Your task to perform on an android device: Search for vegetarian restaurants on Maps Image 0: 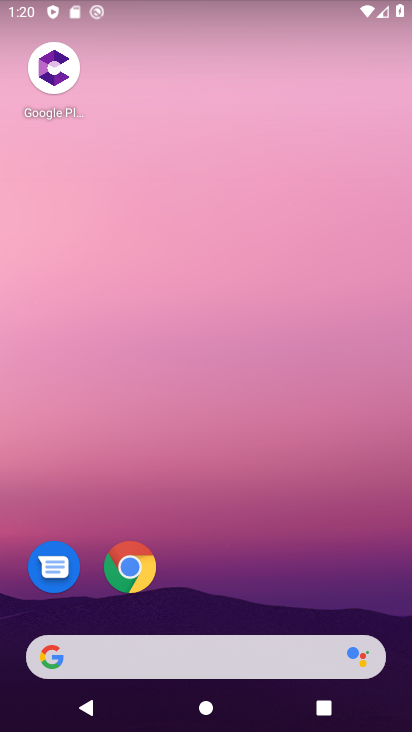
Step 0: drag from (185, 640) to (278, 295)
Your task to perform on an android device: Search for vegetarian restaurants on Maps Image 1: 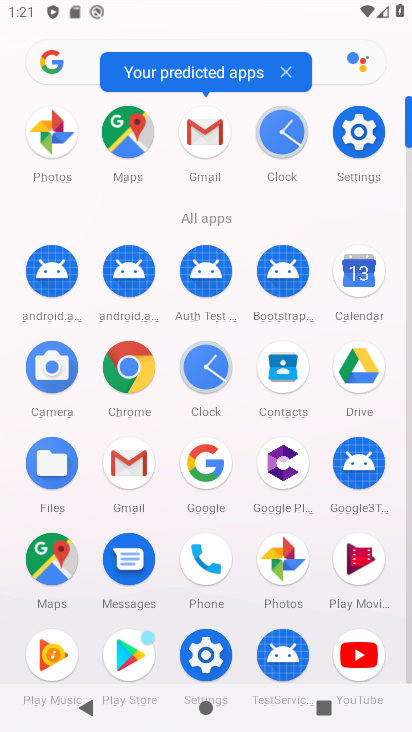
Step 1: click (53, 559)
Your task to perform on an android device: Search for vegetarian restaurants on Maps Image 2: 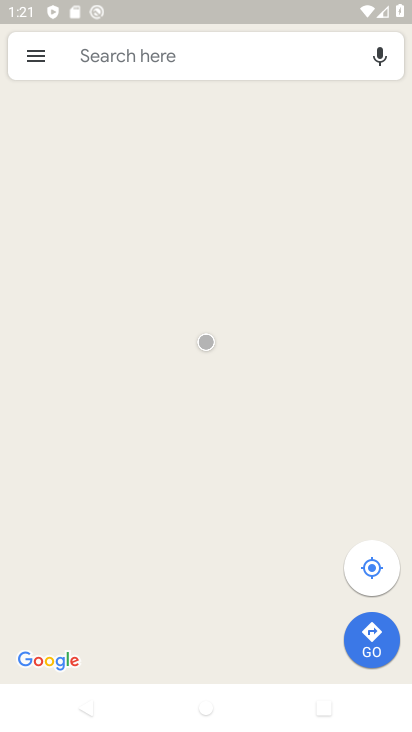
Step 2: click (109, 52)
Your task to perform on an android device: Search for vegetarian restaurants on Maps Image 3: 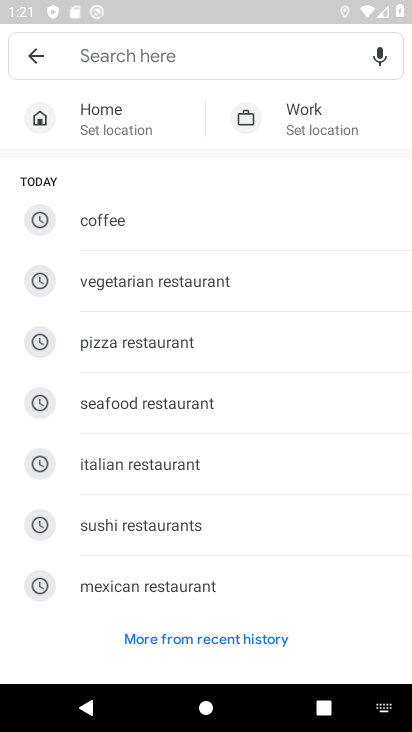
Step 3: click (151, 276)
Your task to perform on an android device: Search for vegetarian restaurants on Maps Image 4: 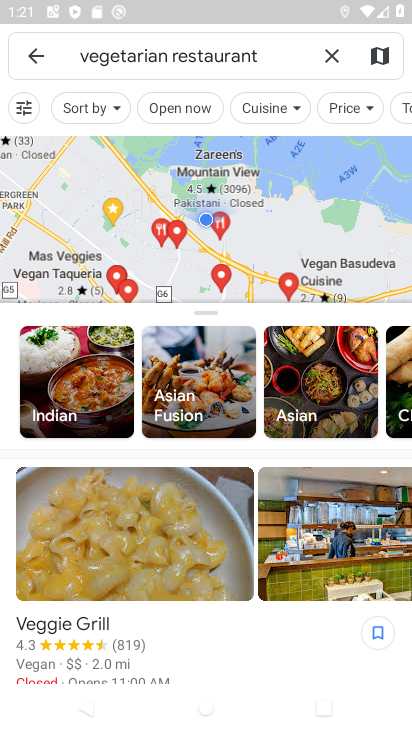
Step 4: task complete